Your task to perform on an android device: turn on notifications settings in the gmail app Image 0: 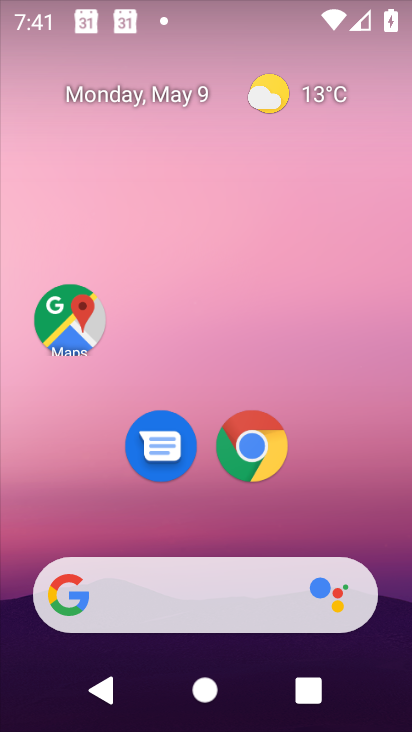
Step 0: drag from (303, 492) to (310, 137)
Your task to perform on an android device: turn on notifications settings in the gmail app Image 1: 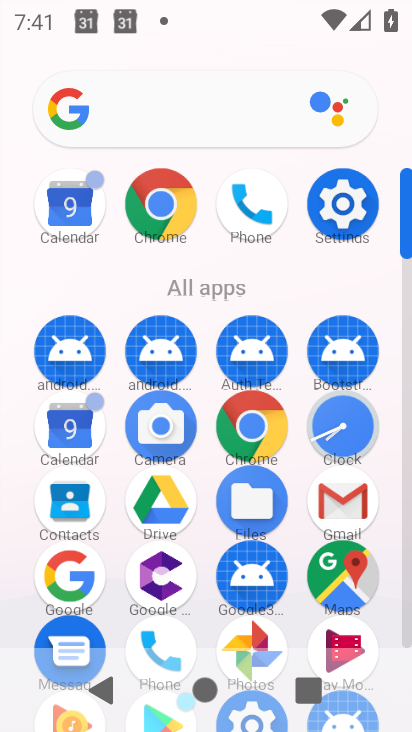
Step 1: click (331, 497)
Your task to perform on an android device: turn on notifications settings in the gmail app Image 2: 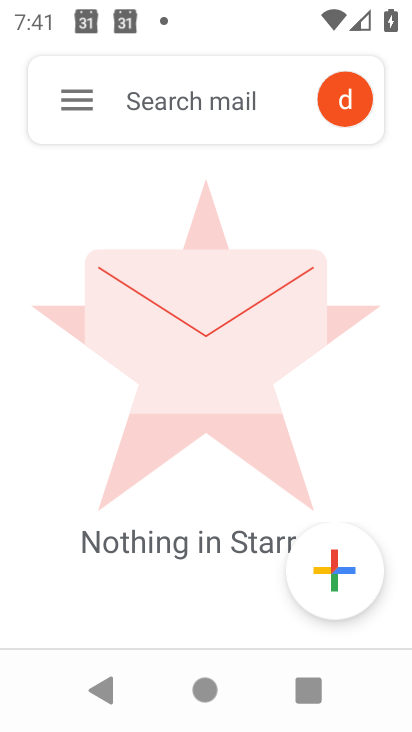
Step 2: click (66, 107)
Your task to perform on an android device: turn on notifications settings in the gmail app Image 3: 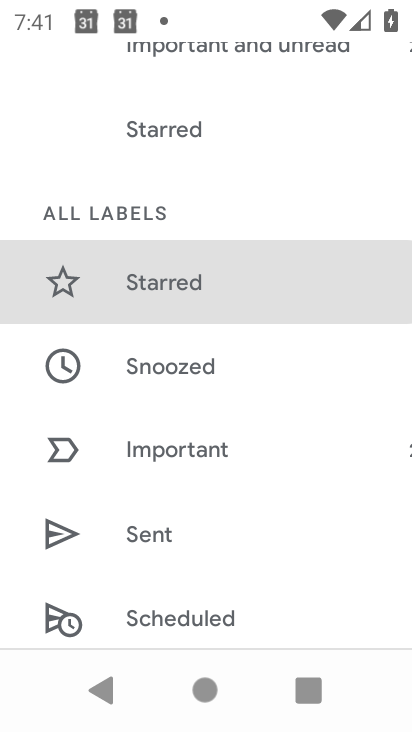
Step 3: drag from (214, 600) to (222, 144)
Your task to perform on an android device: turn on notifications settings in the gmail app Image 4: 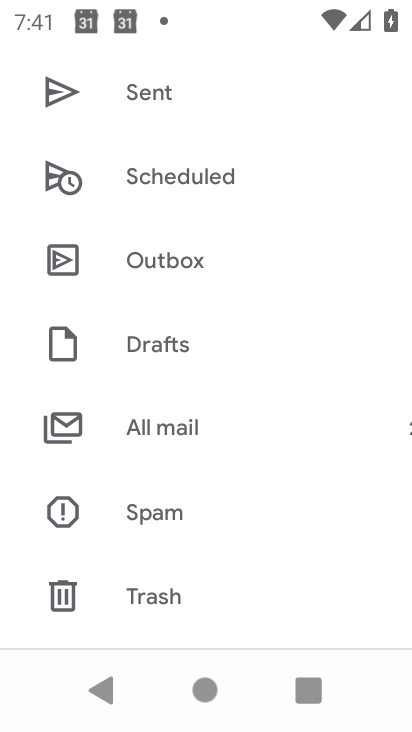
Step 4: drag from (209, 576) to (228, 104)
Your task to perform on an android device: turn on notifications settings in the gmail app Image 5: 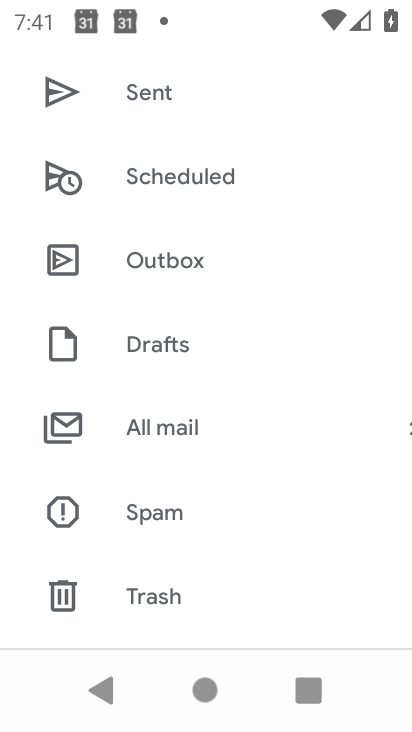
Step 5: drag from (147, 551) to (160, 199)
Your task to perform on an android device: turn on notifications settings in the gmail app Image 6: 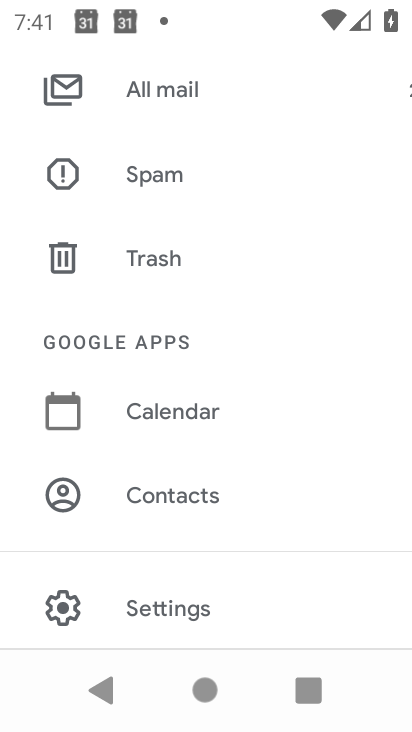
Step 6: click (202, 614)
Your task to perform on an android device: turn on notifications settings in the gmail app Image 7: 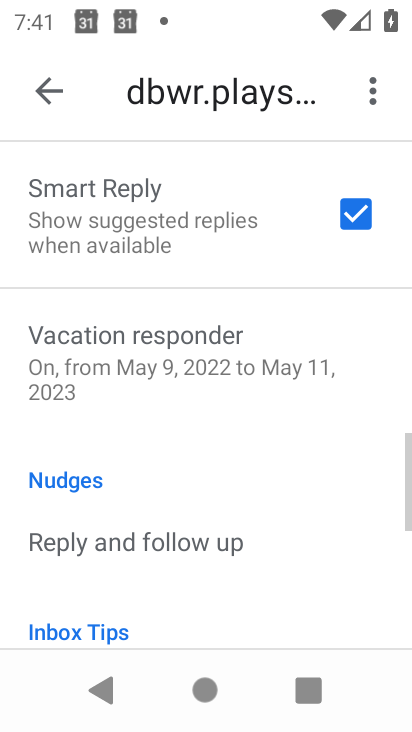
Step 7: drag from (204, 579) to (252, 208)
Your task to perform on an android device: turn on notifications settings in the gmail app Image 8: 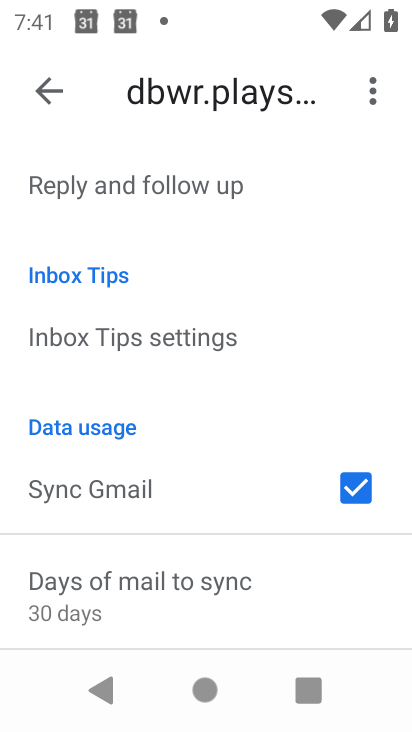
Step 8: drag from (210, 582) to (250, 209)
Your task to perform on an android device: turn on notifications settings in the gmail app Image 9: 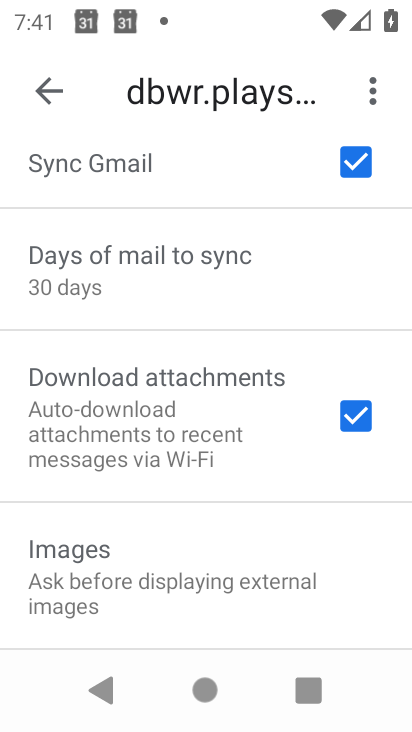
Step 9: drag from (205, 574) to (244, 615)
Your task to perform on an android device: turn on notifications settings in the gmail app Image 10: 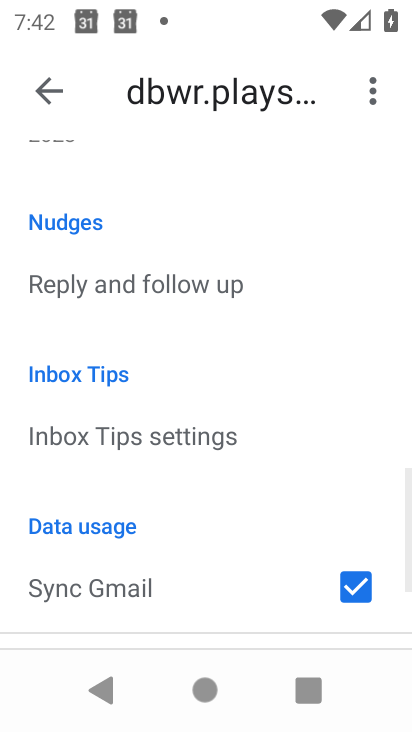
Step 10: drag from (301, 302) to (250, 641)
Your task to perform on an android device: turn on notifications settings in the gmail app Image 11: 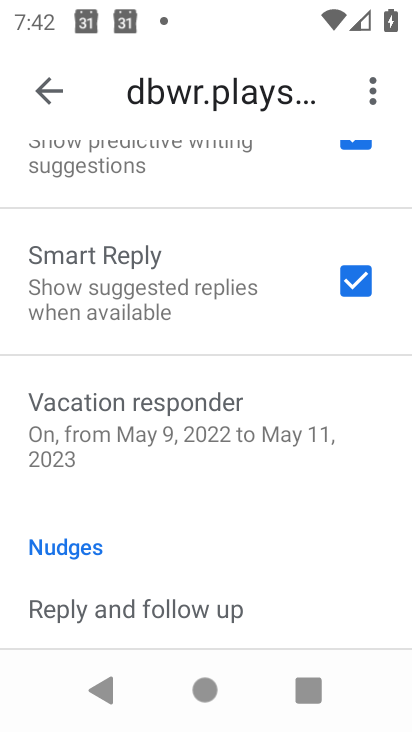
Step 11: drag from (279, 290) to (208, 644)
Your task to perform on an android device: turn on notifications settings in the gmail app Image 12: 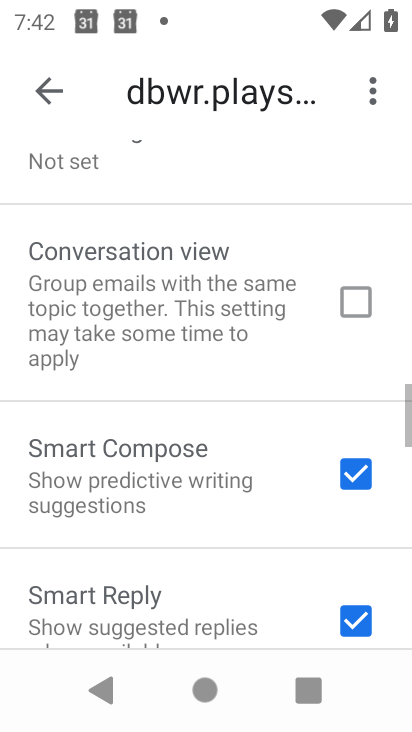
Step 12: drag from (257, 207) to (229, 594)
Your task to perform on an android device: turn on notifications settings in the gmail app Image 13: 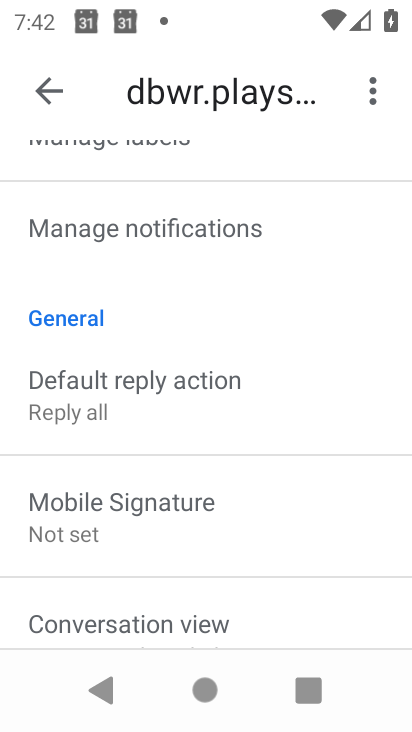
Step 13: drag from (287, 299) to (244, 620)
Your task to perform on an android device: turn on notifications settings in the gmail app Image 14: 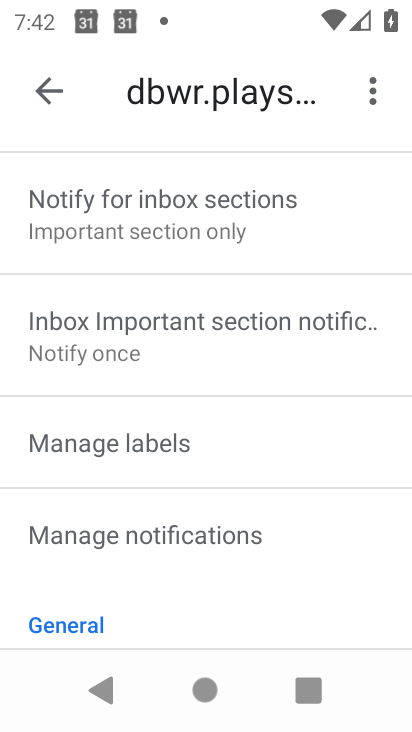
Step 14: drag from (222, 234) to (182, 606)
Your task to perform on an android device: turn on notifications settings in the gmail app Image 15: 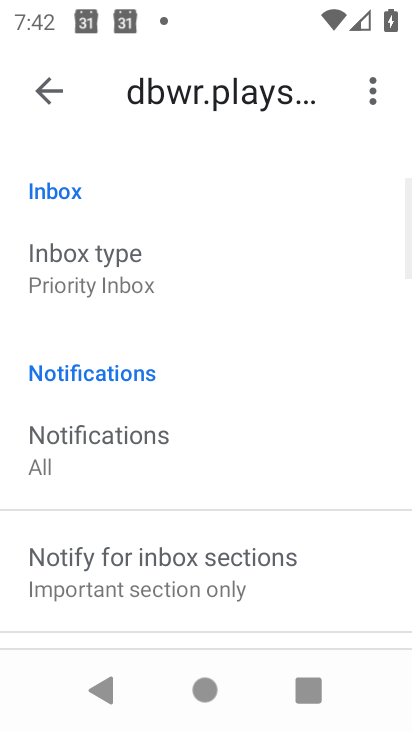
Step 15: click (171, 460)
Your task to perform on an android device: turn on notifications settings in the gmail app Image 16: 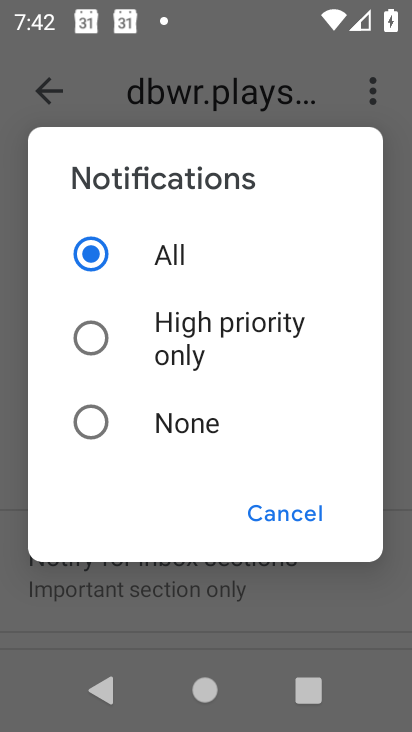
Step 16: task complete